Your task to perform on an android device: Open settings on Google Maps Image 0: 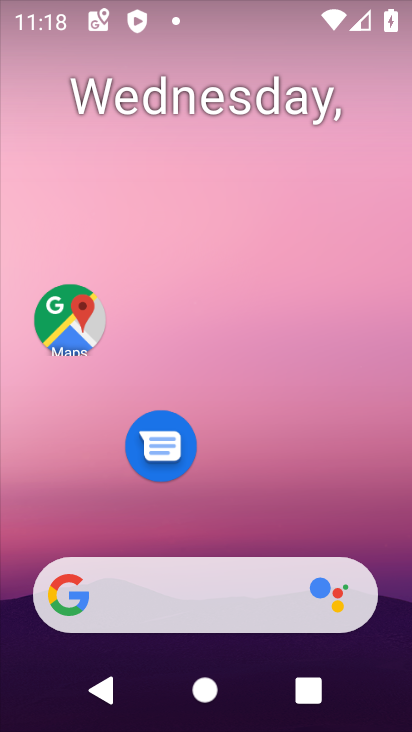
Step 0: press home button
Your task to perform on an android device: Open settings on Google Maps Image 1: 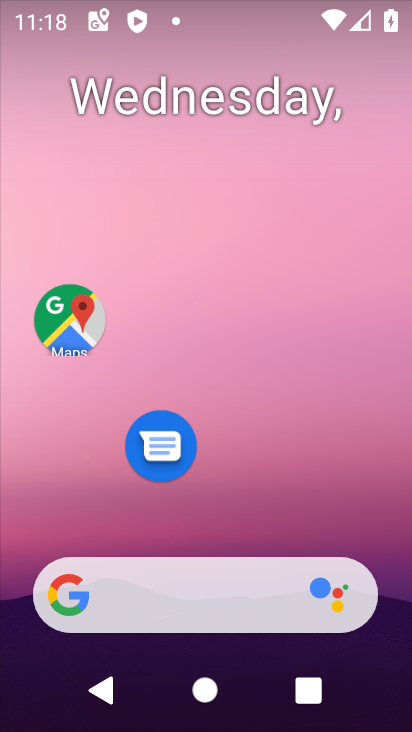
Step 1: click (64, 304)
Your task to perform on an android device: Open settings on Google Maps Image 2: 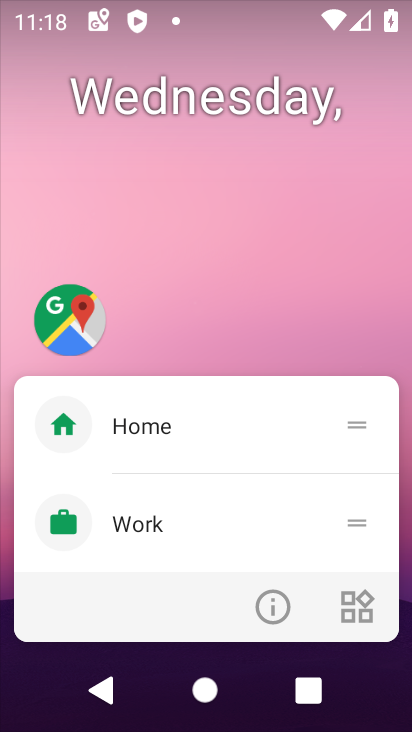
Step 2: click (64, 313)
Your task to perform on an android device: Open settings on Google Maps Image 3: 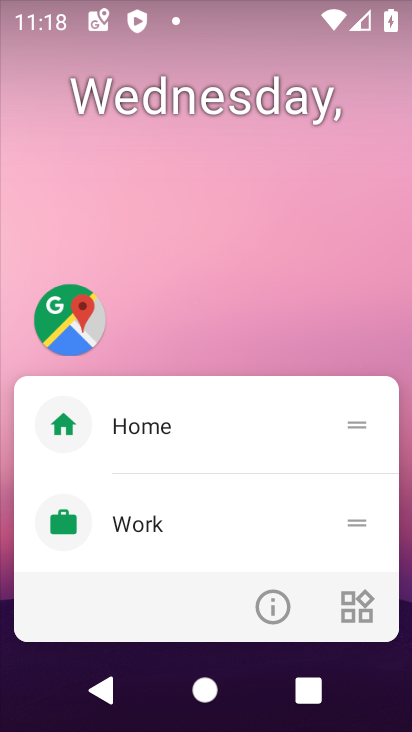
Step 3: click (63, 314)
Your task to perform on an android device: Open settings on Google Maps Image 4: 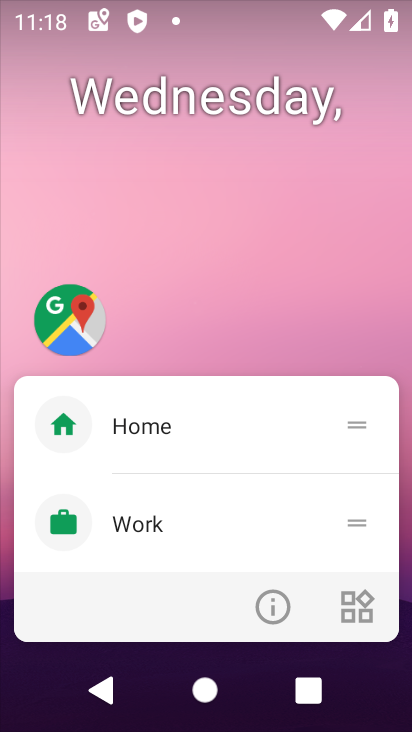
Step 4: click (62, 325)
Your task to perform on an android device: Open settings on Google Maps Image 5: 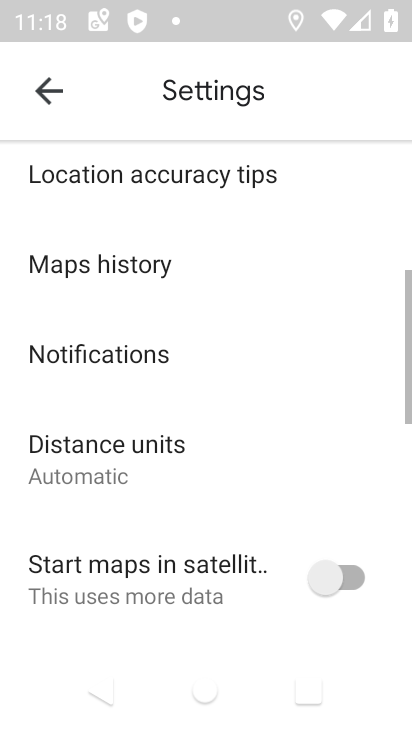
Step 5: press back button
Your task to perform on an android device: Open settings on Google Maps Image 6: 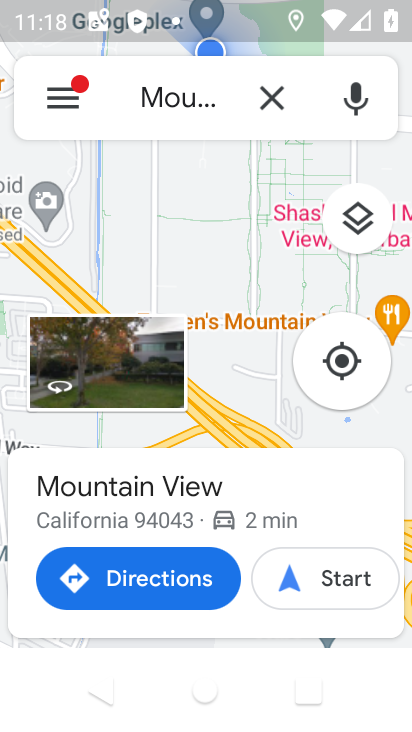
Step 6: click (62, 100)
Your task to perform on an android device: Open settings on Google Maps Image 7: 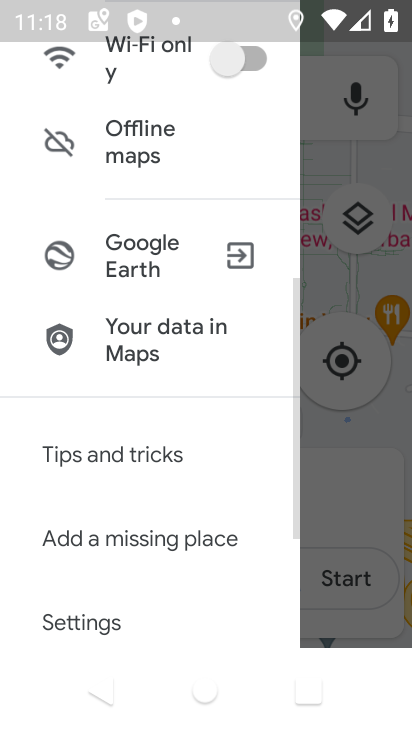
Step 7: click (81, 622)
Your task to perform on an android device: Open settings on Google Maps Image 8: 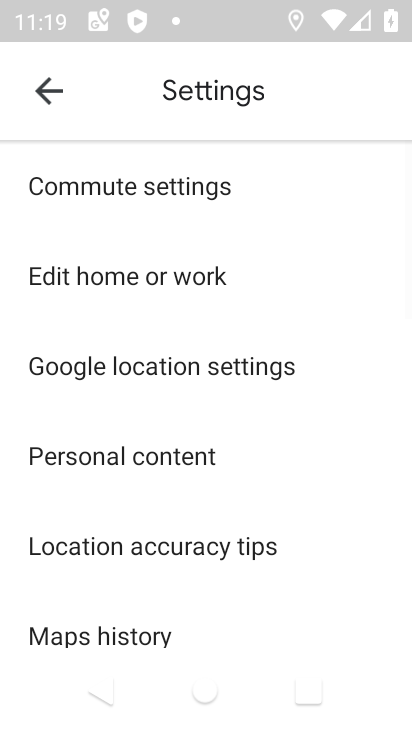
Step 8: task complete